Your task to perform on an android device: Go to calendar. Show me events next week Image 0: 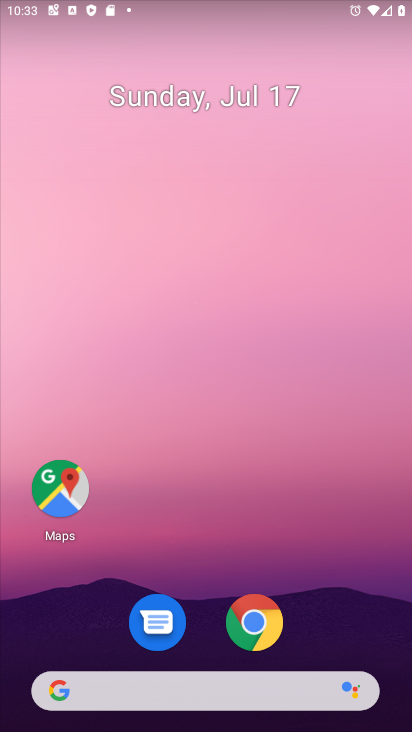
Step 0: drag from (293, 726) to (164, 15)
Your task to perform on an android device: Go to calendar. Show me events next week Image 1: 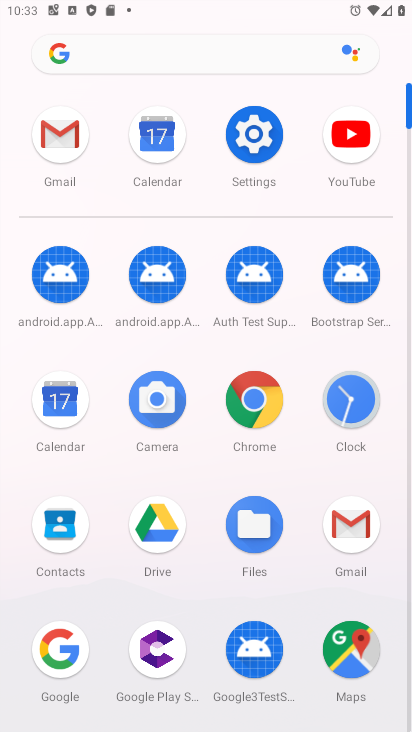
Step 1: click (157, 137)
Your task to perform on an android device: Go to calendar. Show me events next week Image 2: 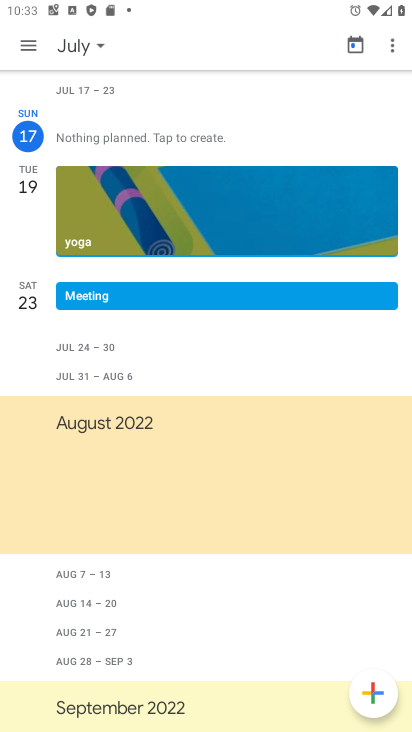
Step 2: click (83, 45)
Your task to perform on an android device: Go to calendar. Show me events next week Image 3: 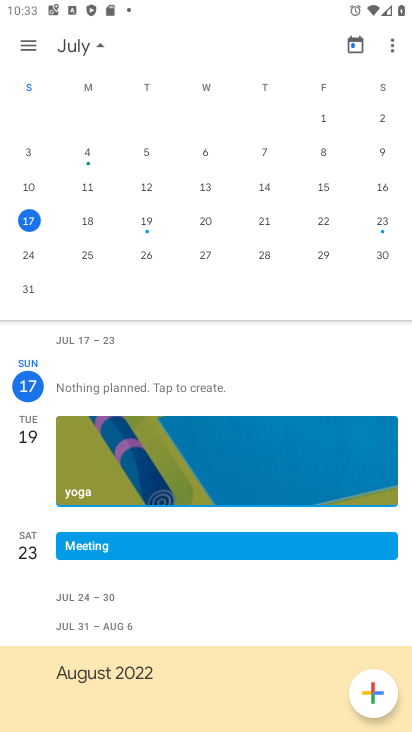
Step 3: click (28, 254)
Your task to perform on an android device: Go to calendar. Show me events next week Image 4: 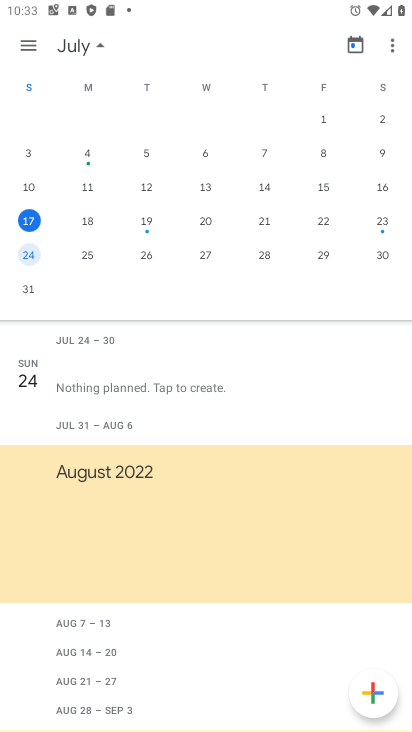
Step 4: task complete